Your task to perform on an android device: Add "usb-a" to the cart on costco Image 0: 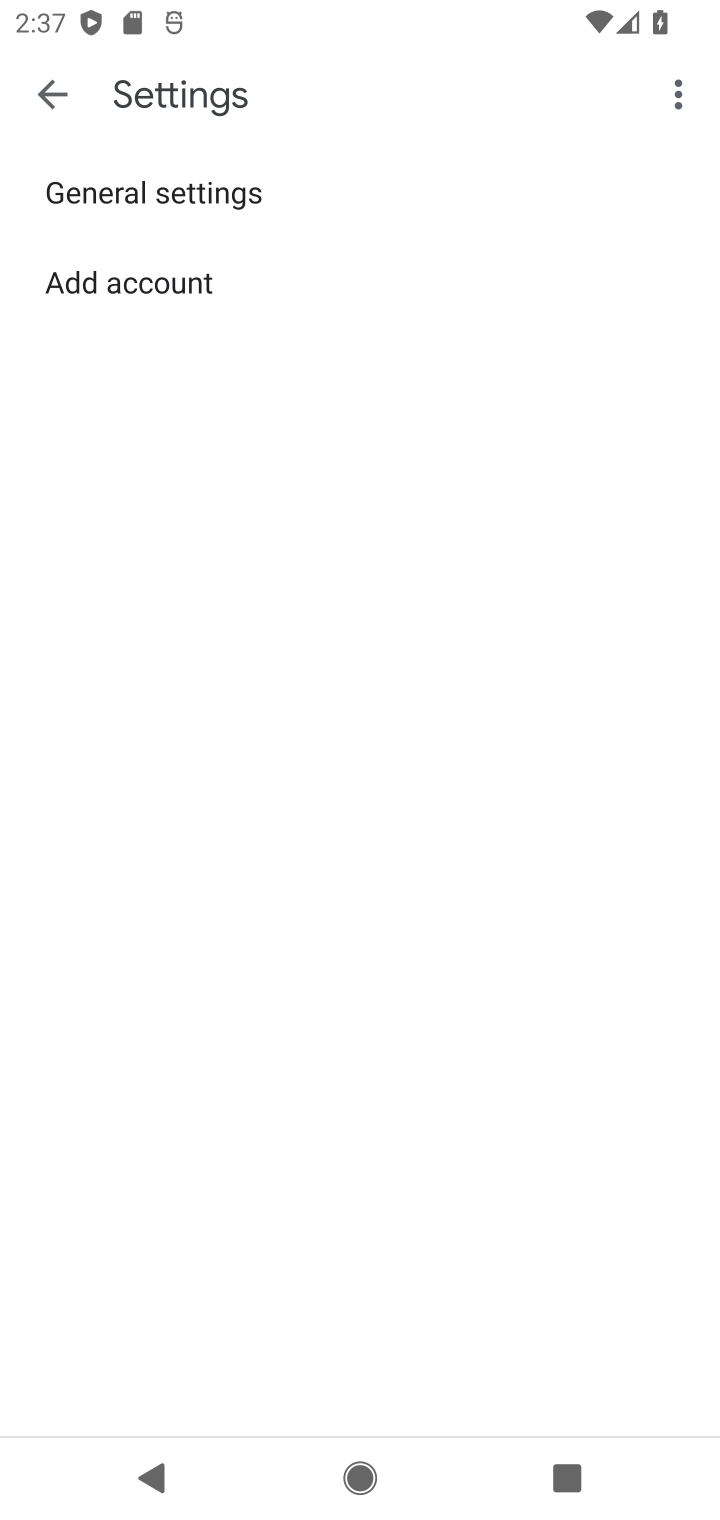
Step 0: press home button
Your task to perform on an android device: Add "usb-a" to the cart on costco Image 1: 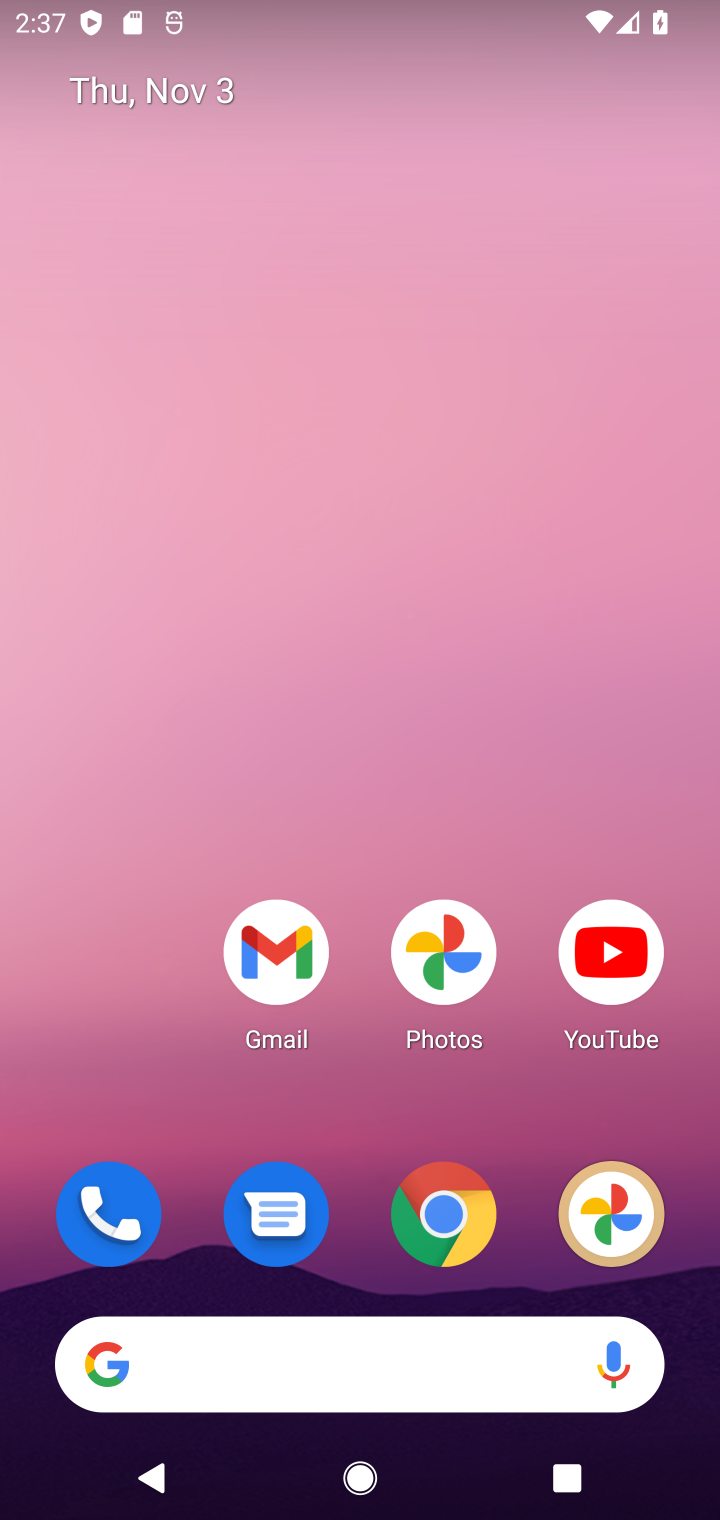
Step 1: click (202, 1368)
Your task to perform on an android device: Add "usb-a" to the cart on costco Image 2: 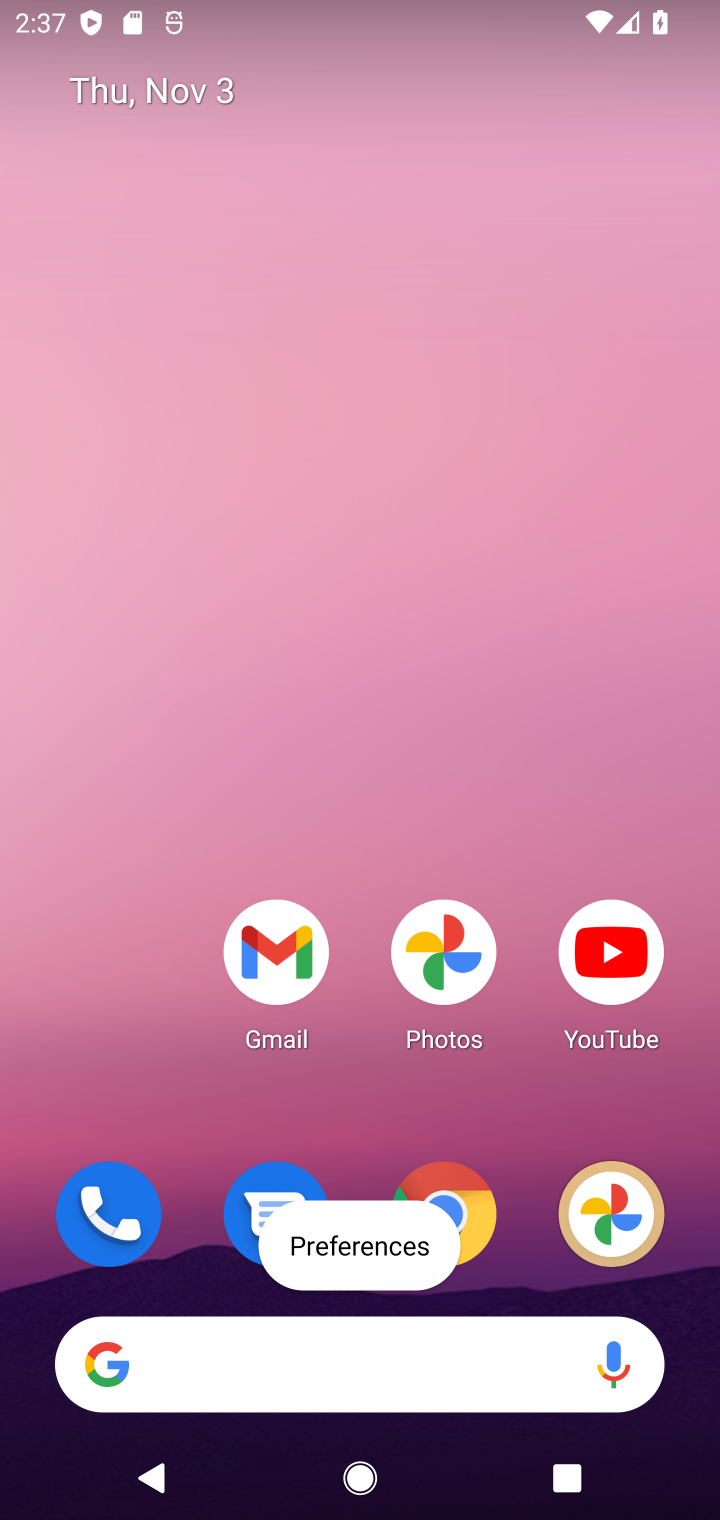
Step 2: click (202, 1368)
Your task to perform on an android device: Add "usb-a" to the cart on costco Image 3: 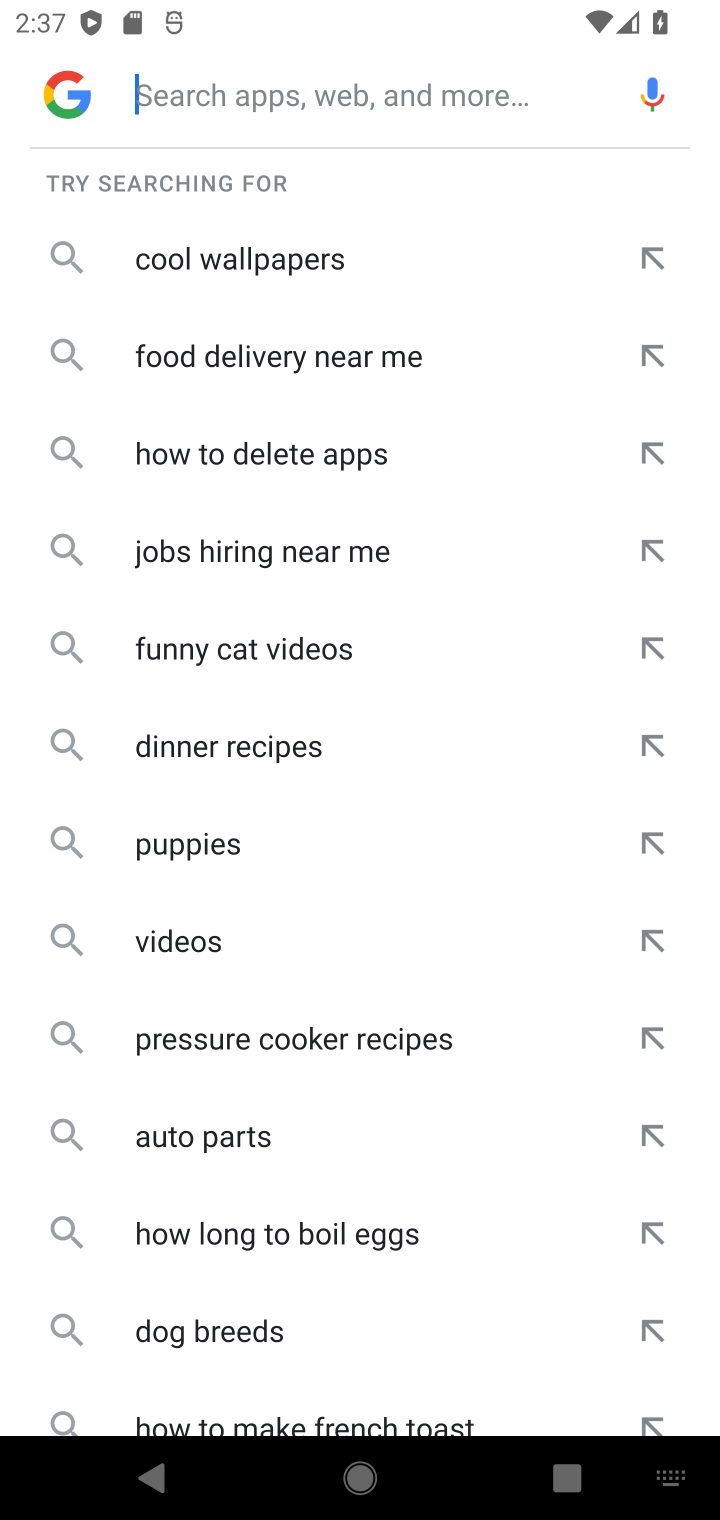
Step 3: type "costco"
Your task to perform on an android device: Add "usb-a" to the cart on costco Image 4: 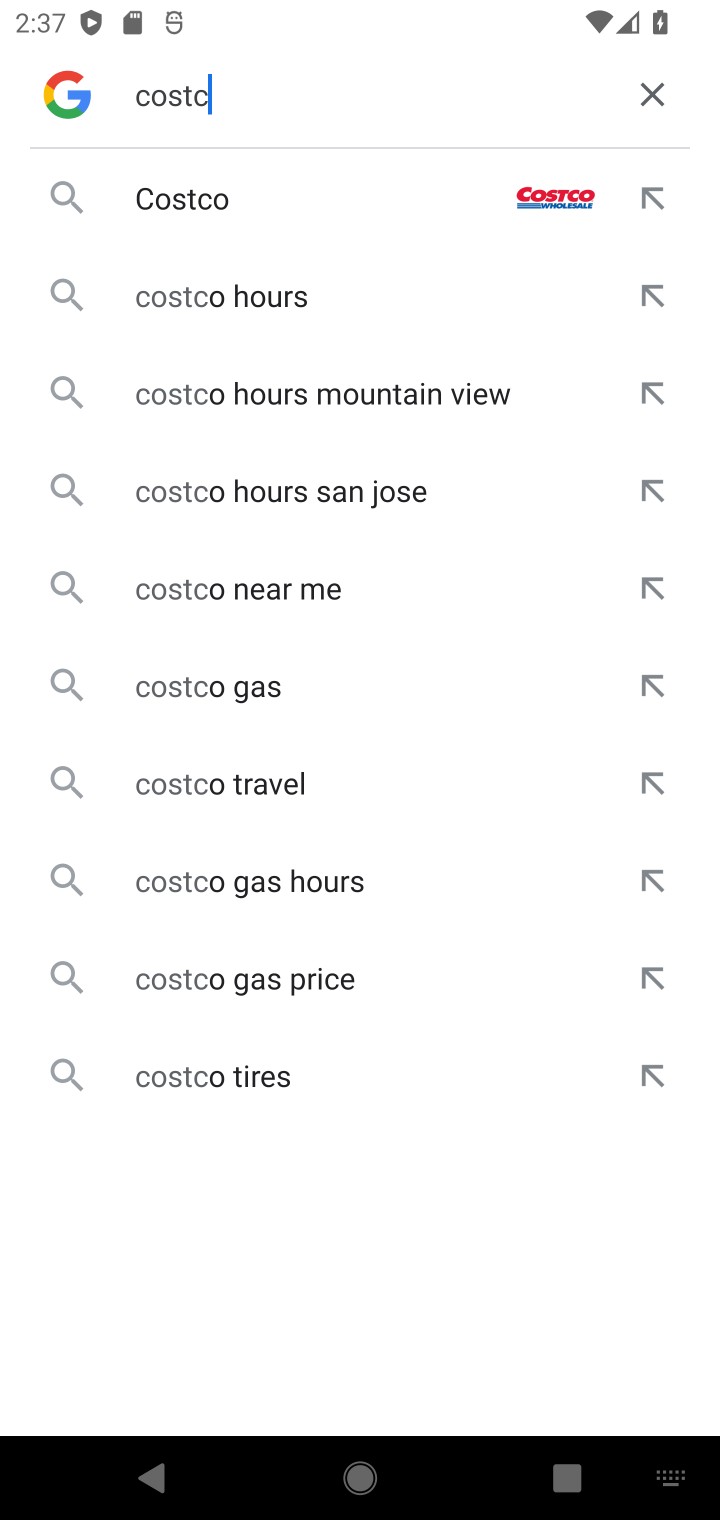
Step 4: type ""
Your task to perform on an android device: Add "usb-a" to the cart on costco Image 5: 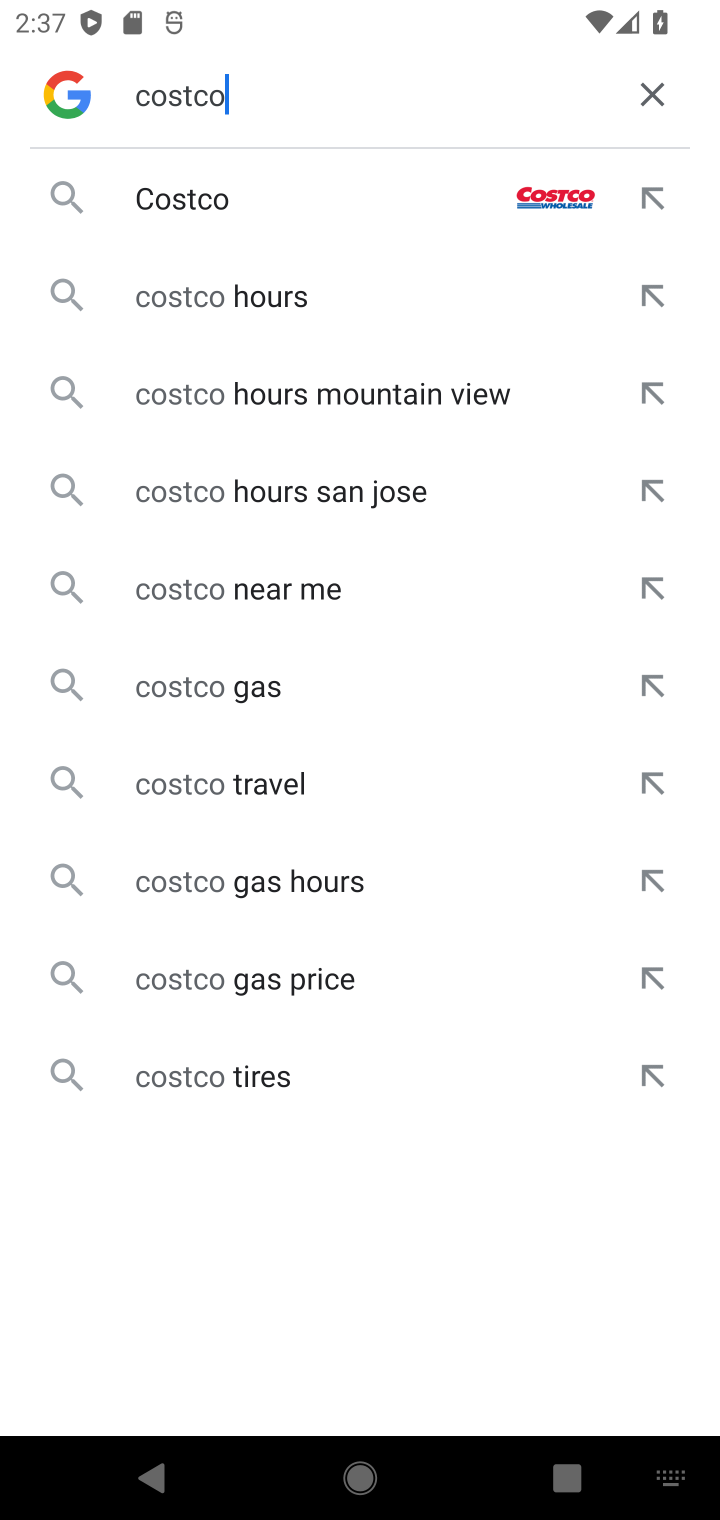
Step 5: press enter
Your task to perform on an android device: Add "usb-a" to the cart on costco Image 6: 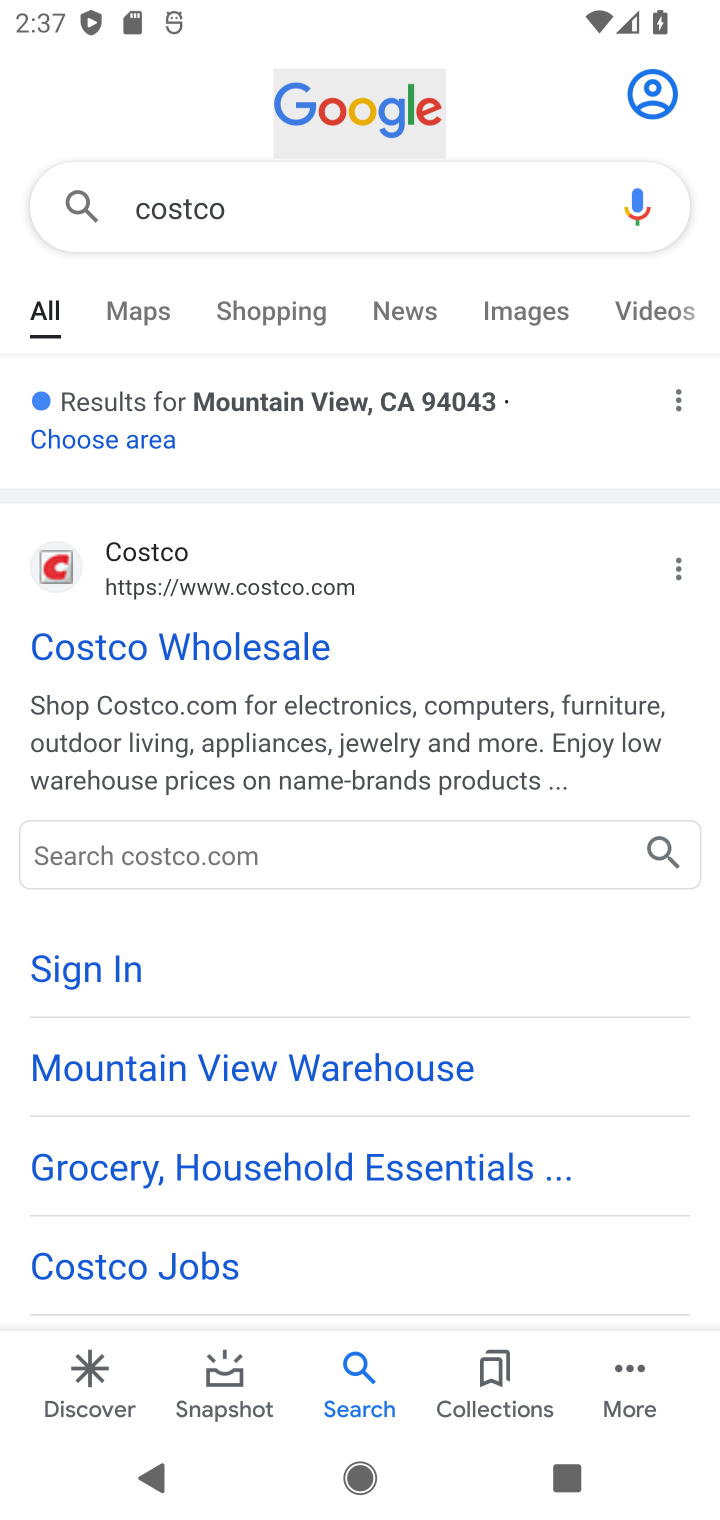
Step 6: click (252, 640)
Your task to perform on an android device: Add "usb-a" to the cart on costco Image 7: 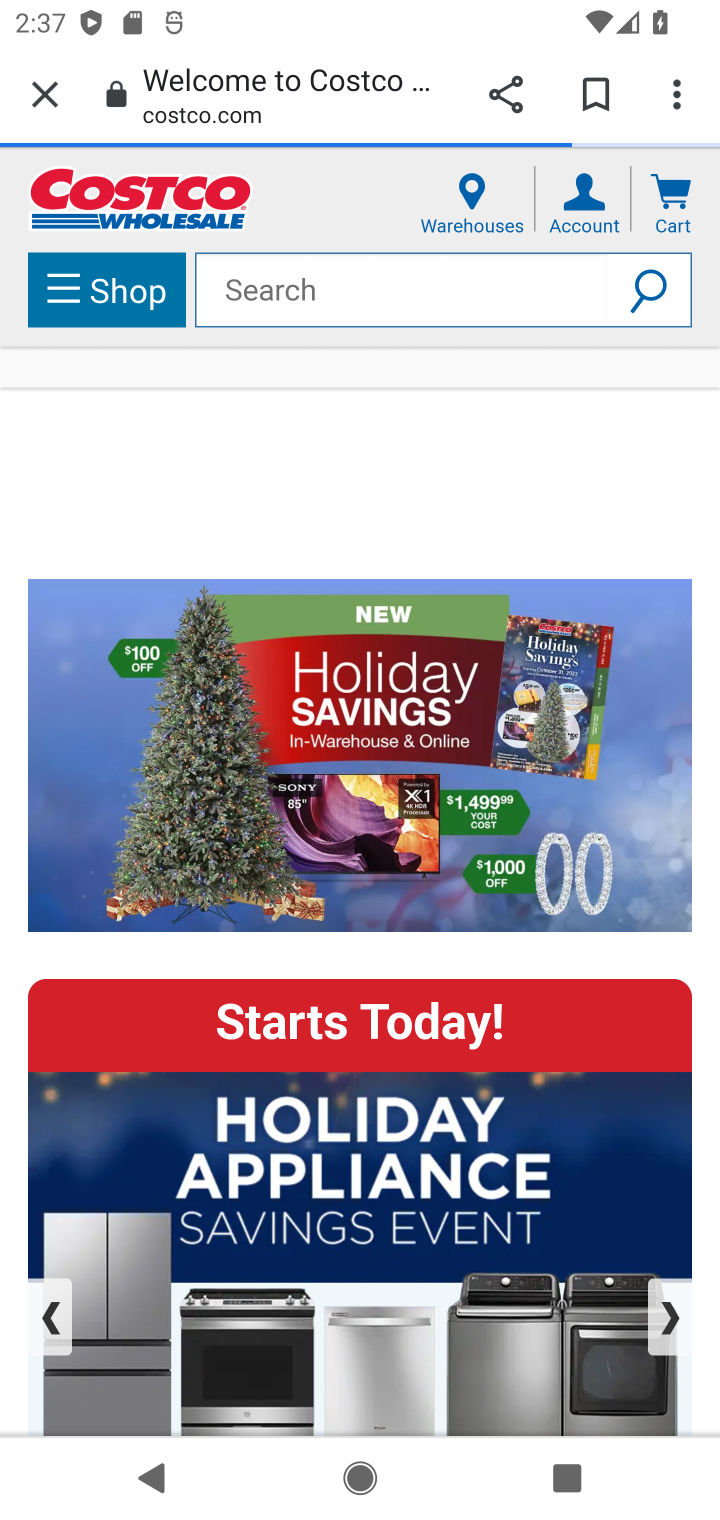
Step 7: click (291, 286)
Your task to perform on an android device: Add "usb-a" to the cart on costco Image 8: 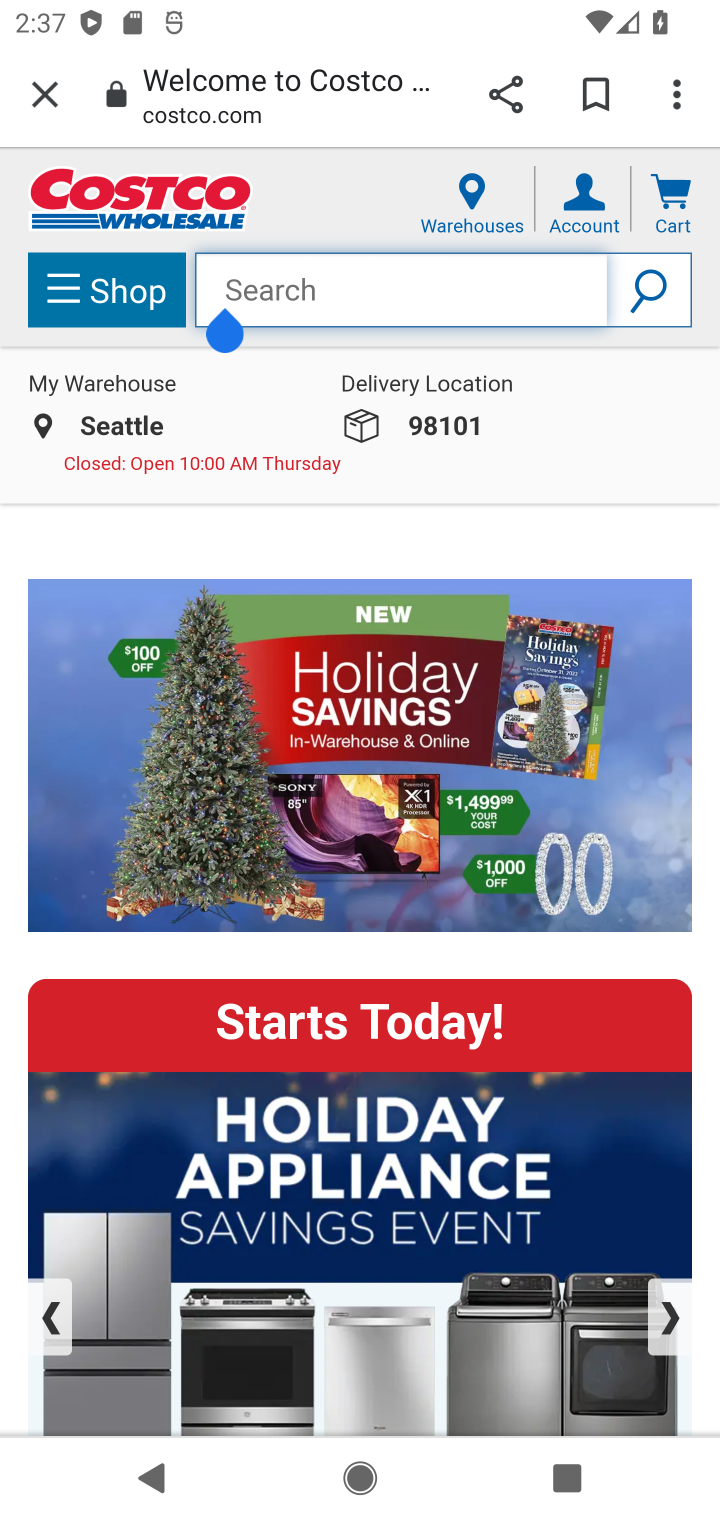
Step 8: type "usb-a"
Your task to perform on an android device: Add "usb-a" to the cart on costco Image 9: 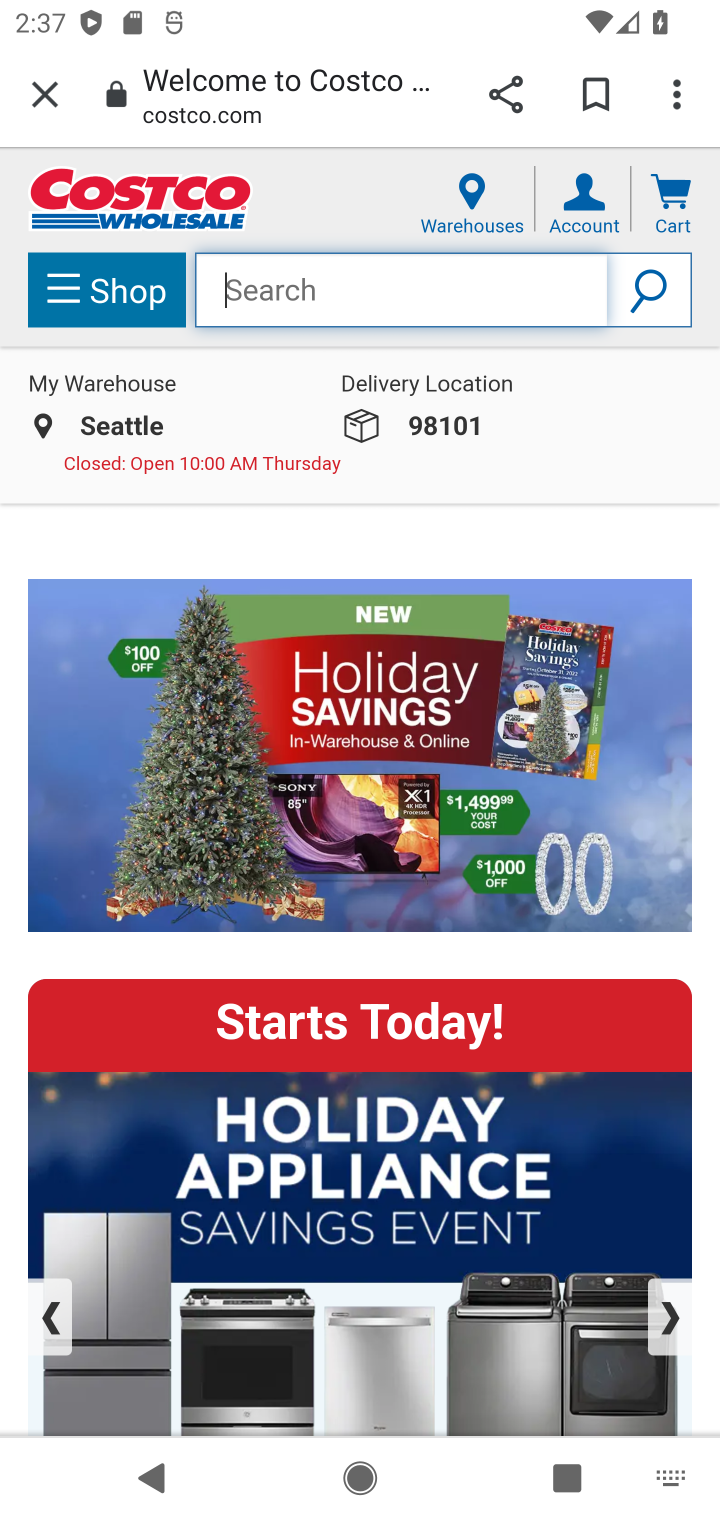
Step 9: type ""
Your task to perform on an android device: Add "usb-a" to the cart on costco Image 10: 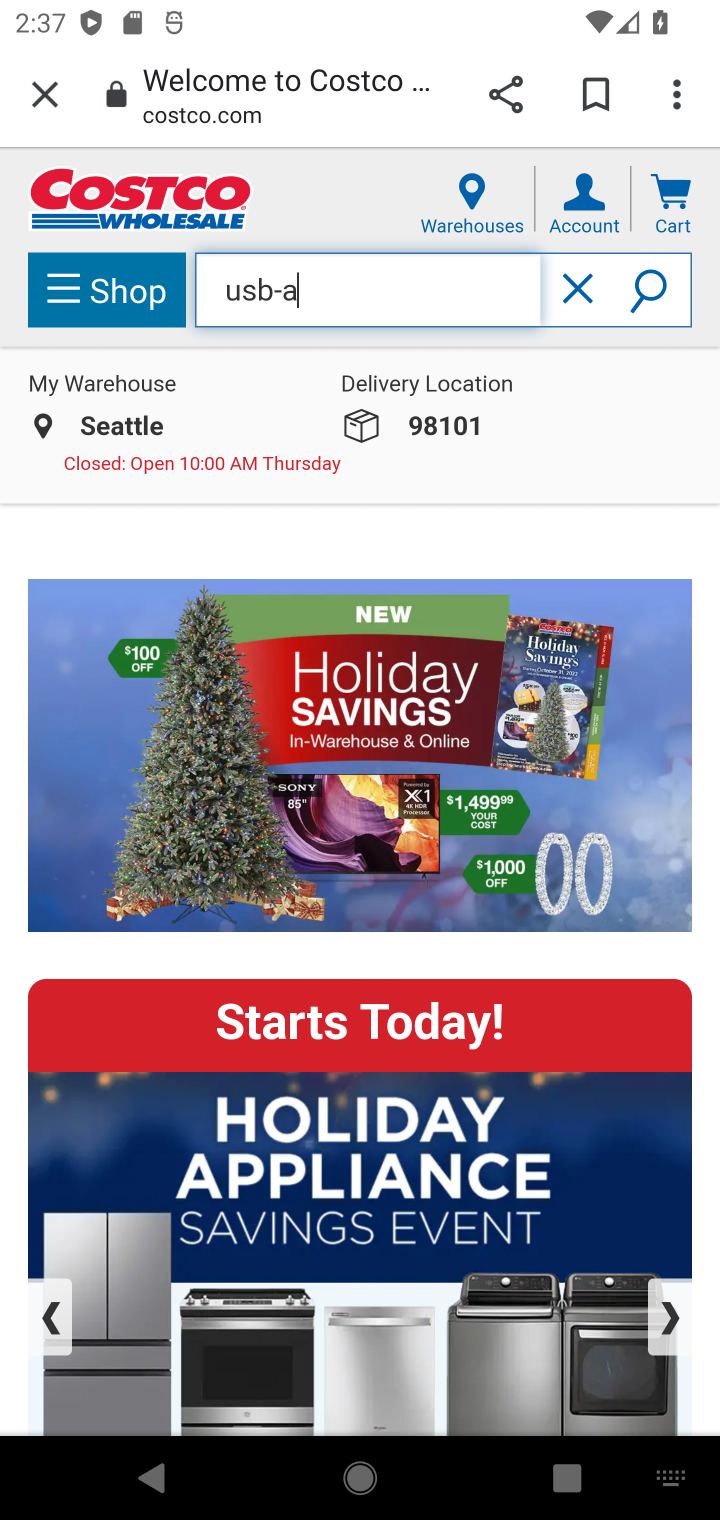
Step 10: press enter
Your task to perform on an android device: Add "usb-a" to the cart on costco Image 11: 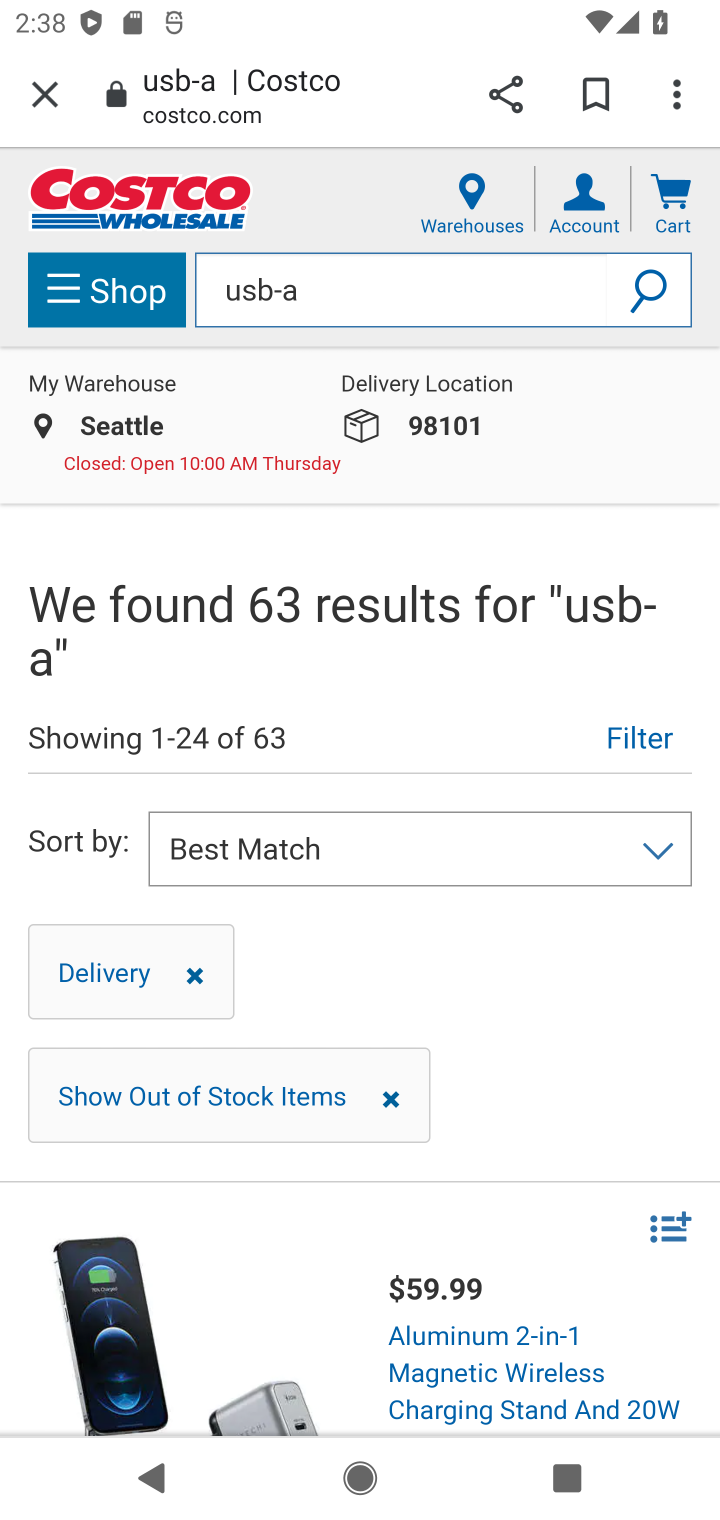
Step 11: drag from (522, 1019) to (486, 448)
Your task to perform on an android device: Add "usb-a" to the cart on costco Image 12: 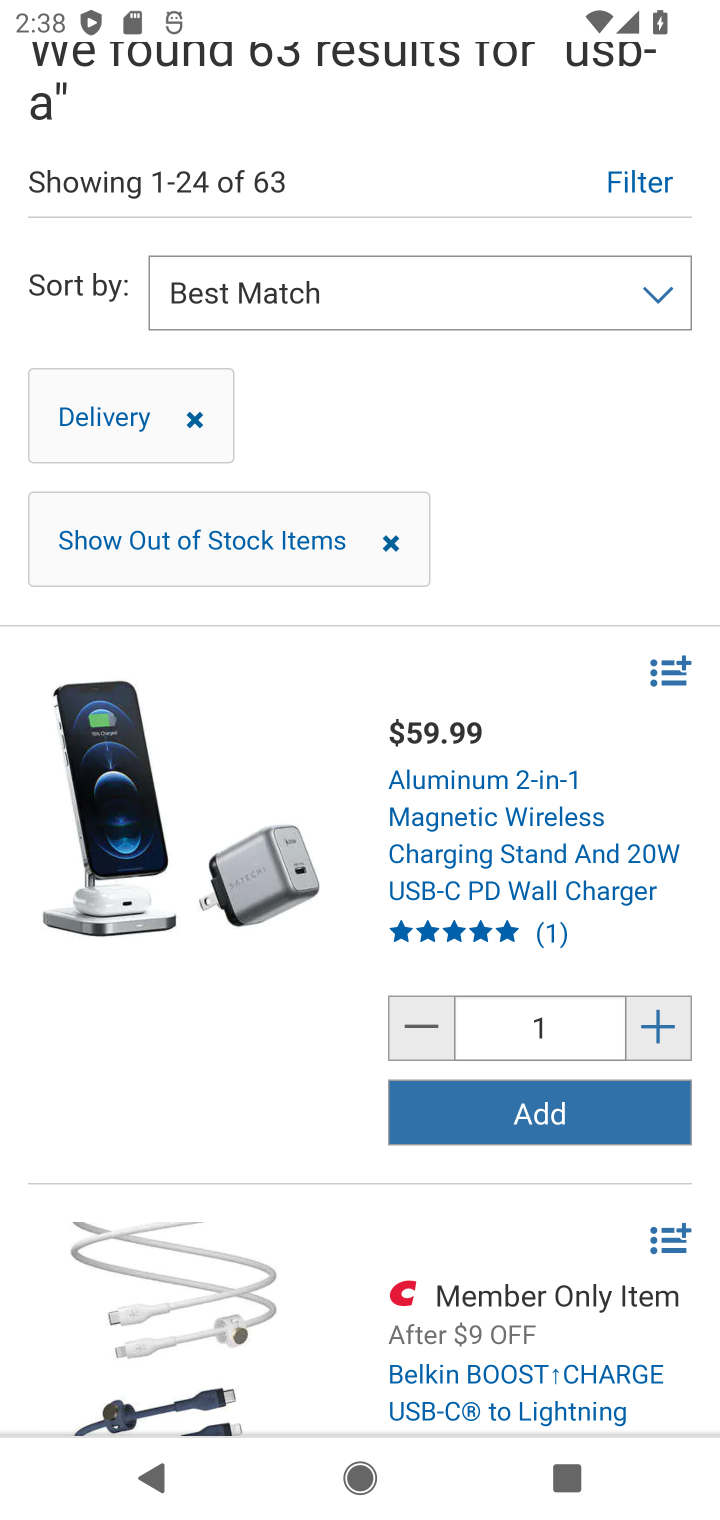
Step 12: click (553, 1117)
Your task to perform on an android device: Add "usb-a" to the cart on costco Image 13: 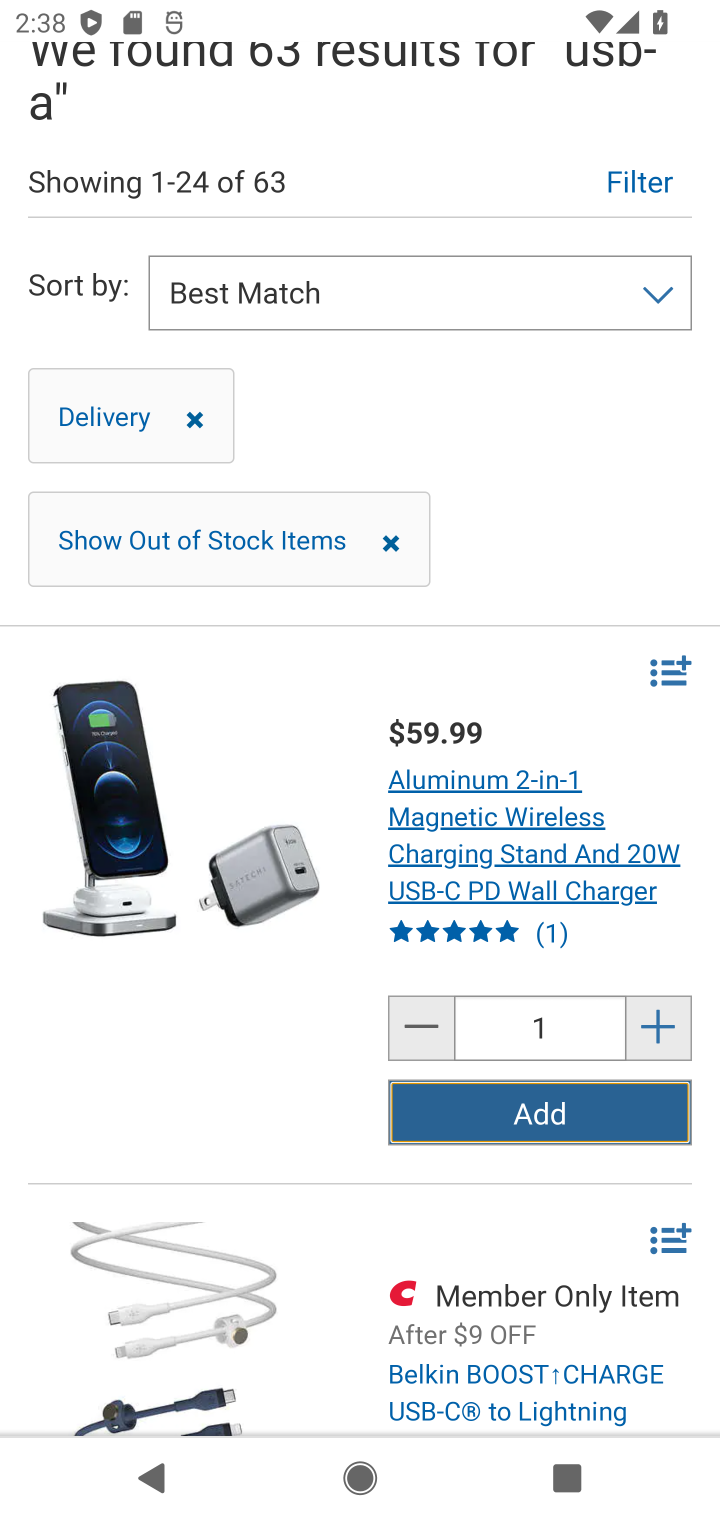
Step 13: click (553, 1117)
Your task to perform on an android device: Add "usb-a" to the cart on costco Image 14: 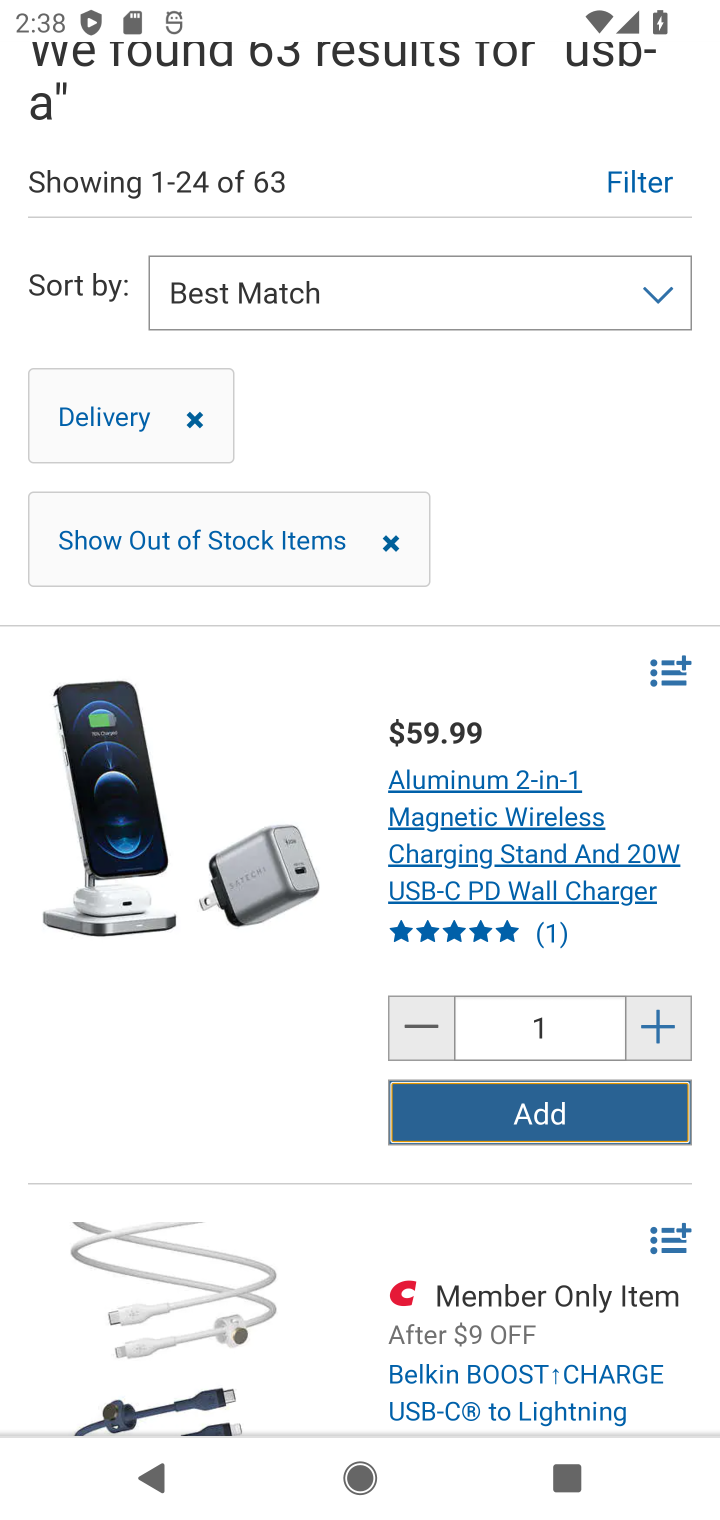
Step 14: click (530, 1121)
Your task to perform on an android device: Add "usb-a" to the cart on costco Image 15: 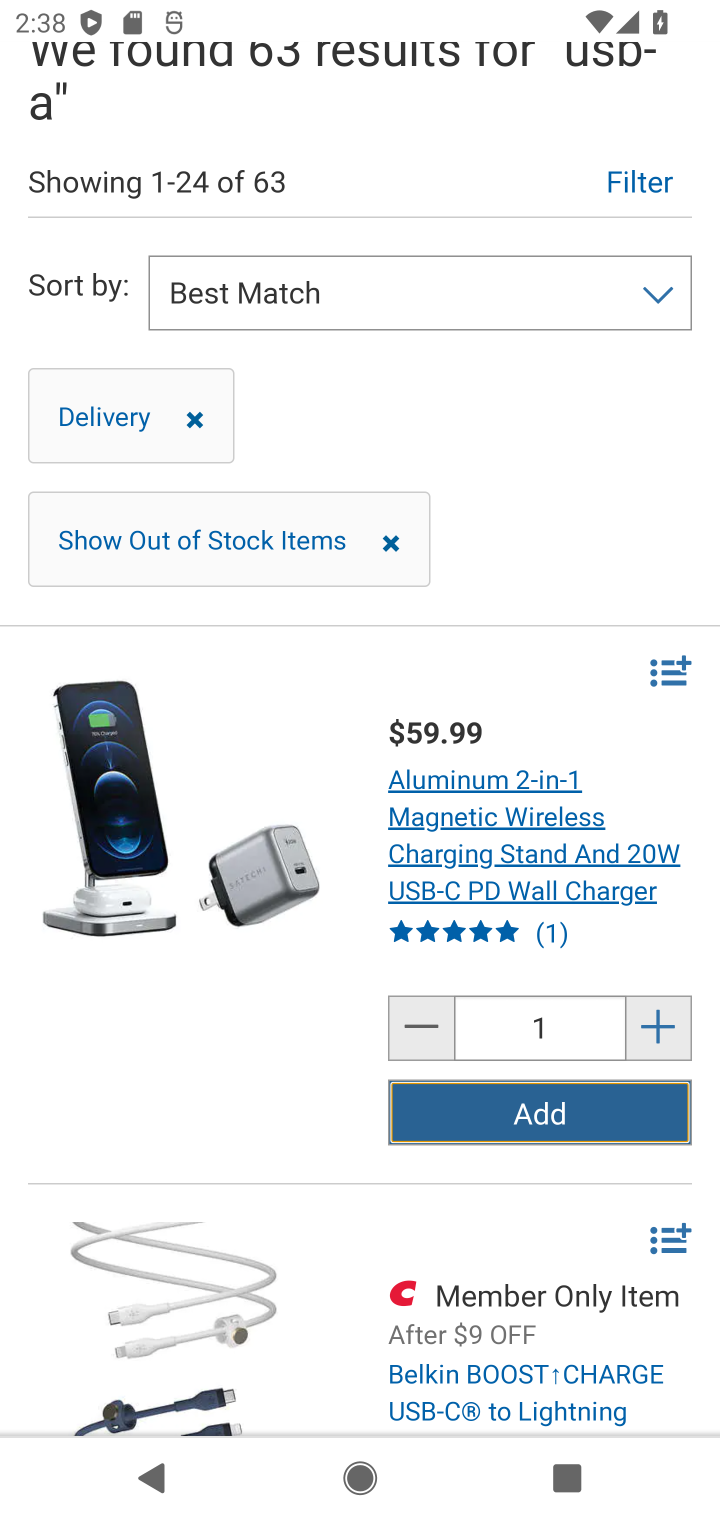
Step 15: click (530, 1121)
Your task to perform on an android device: Add "usb-a" to the cart on costco Image 16: 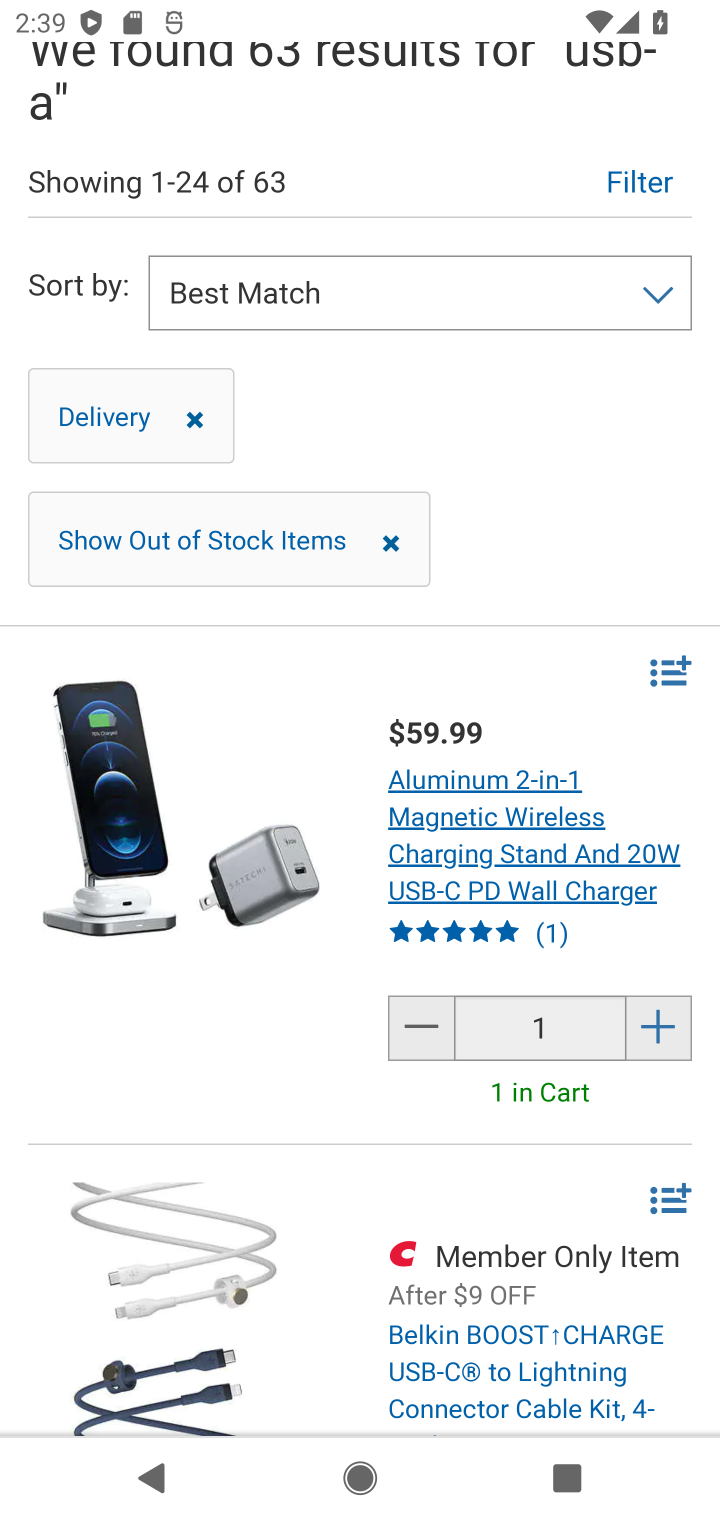
Step 16: task complete